Your task to perform on an android device: Open Google Maps Image 0: 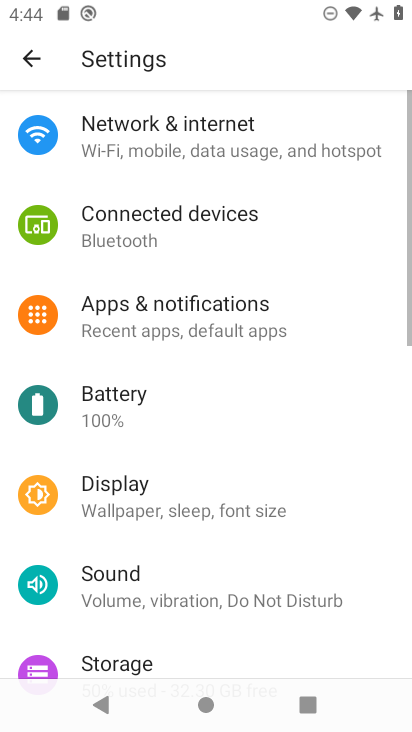
Step 0: press home button
Your task to perform on an android device: Open Google Maps Image 1: 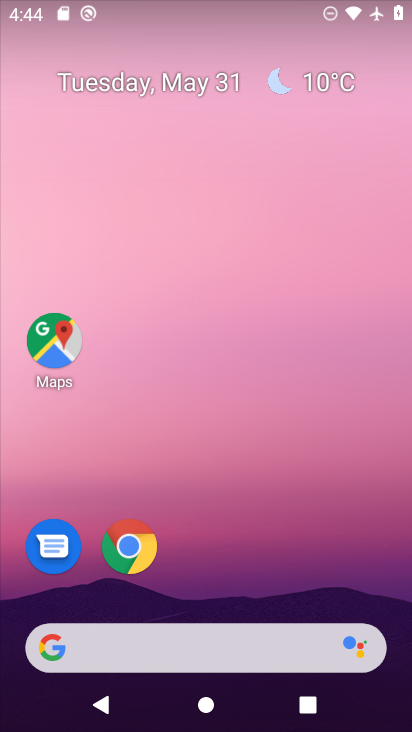
Step 1: click (25, 338)
Your task to perform on an android device: Open Google Maps Image 2: 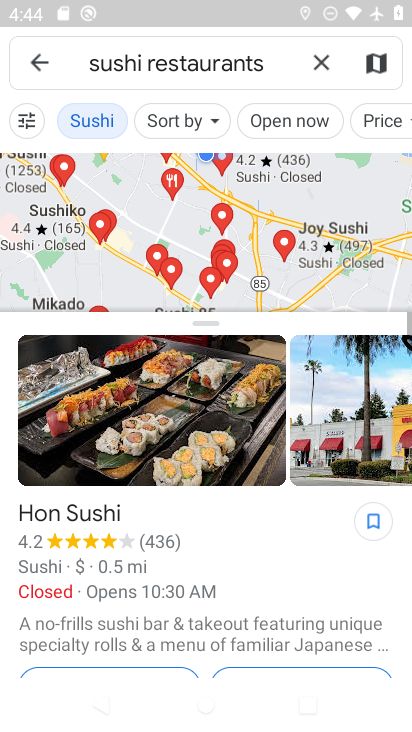
Step 2: click (323, 56)
Your task to perform on an android device: Open Google Maps Image 3: 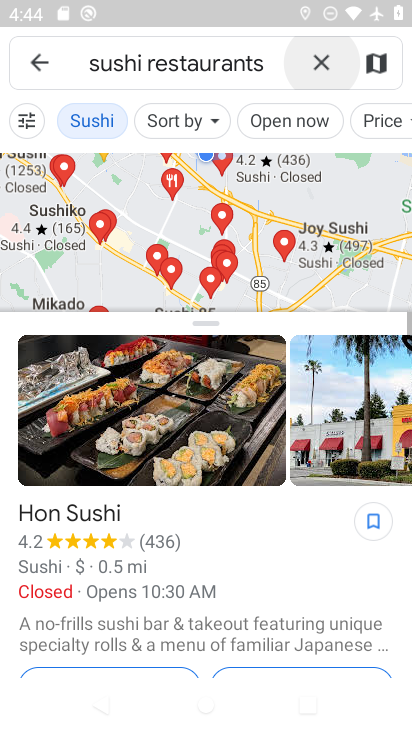
Step 3: task complete